Your task to perform on an android device: toggle show notifications on the lock screen Image 0: 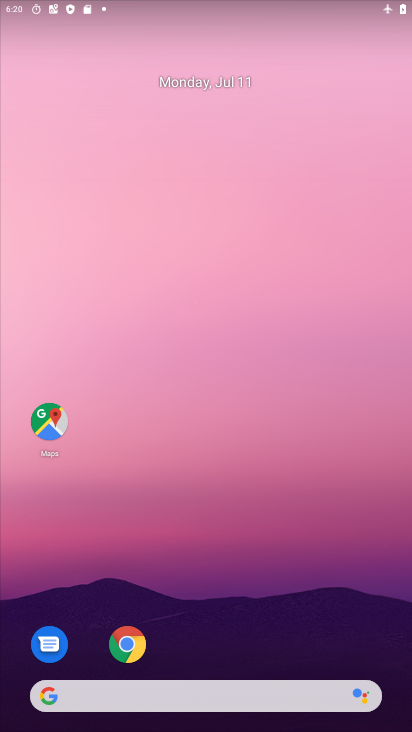
Step 0: drag from (206, 698) to (155, 84)
Your task to perform on an android device: toggle show notifications on the lock screen Image 1: 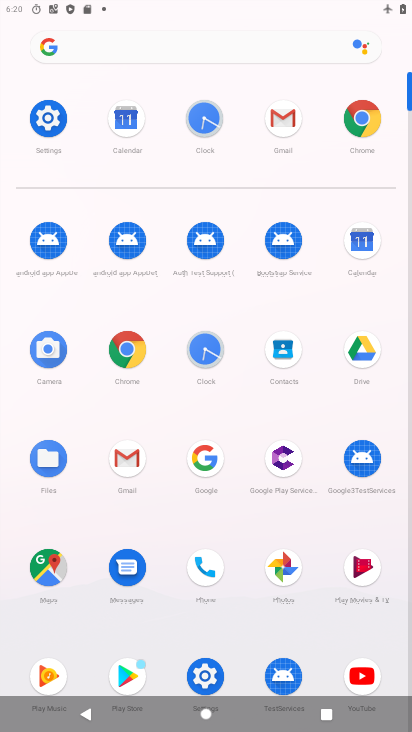
Step 1: click (37, 114)
Your task to perform on an android device: toggle show notifications on the lock screen Image 2: 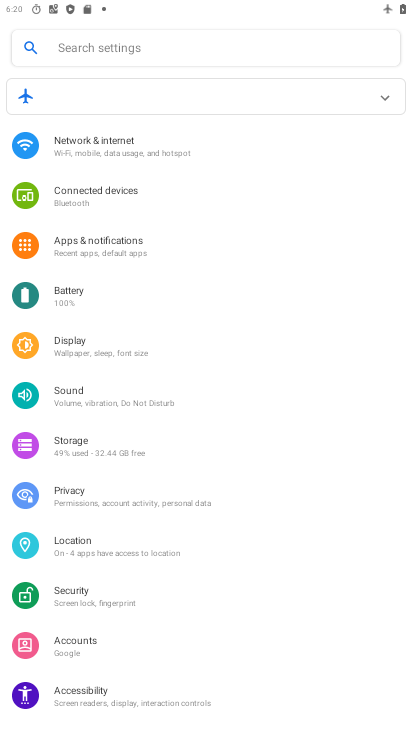
Step 2: click (88, 245)
Your task to perform on an android device: toggle show notifications on the lock screen Image 3: 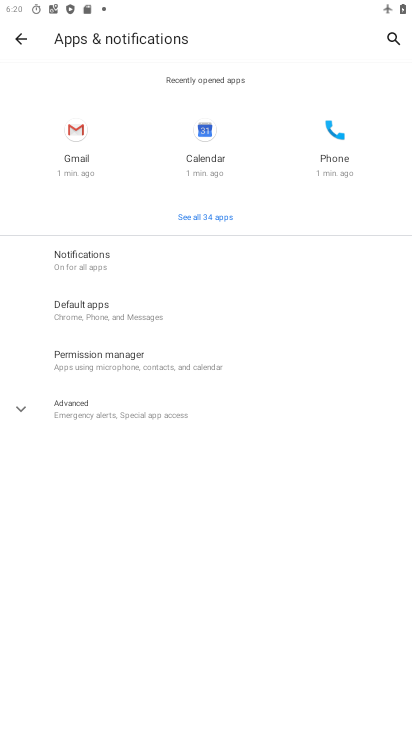
Step 3: click (98, 256)
Your task to perform on an android device: toggle show notifications on the lock screen Image 4: 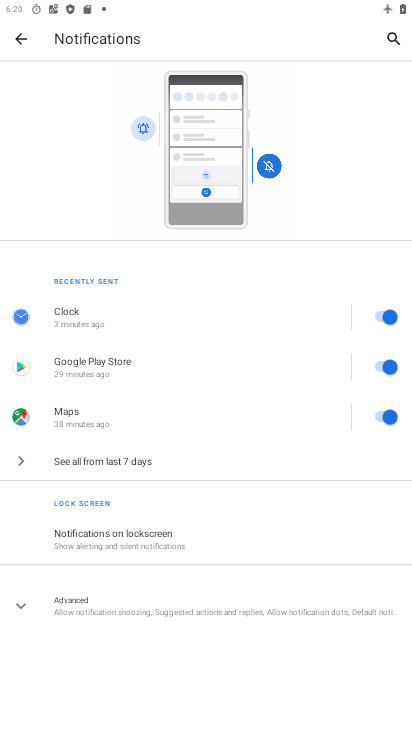
Step 4: click (167, 546)
Your task to perform on an android device: toggle show notifications on the lock screen Image 5: 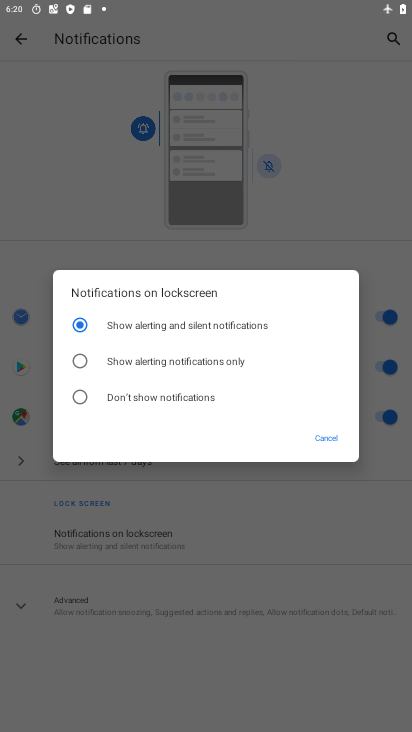
Step 5: click (84, 359)
Your task to perform on an android device: toggle show notifications on the lock screen Image 6: 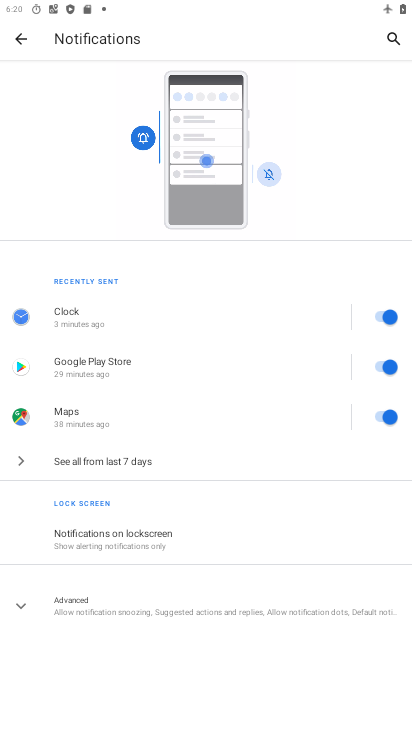
Step 6: task complete